Your task to perform on an android device: find photos in the google photos app Image 0: 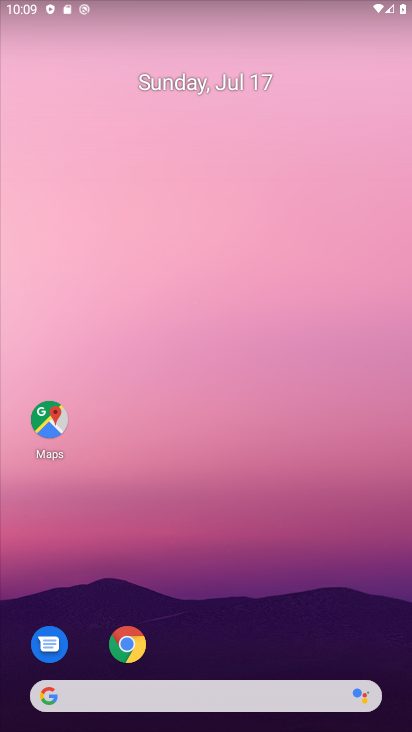
Step 0: drag from (271, 580) to (275, 54)
Your task to perform on an android device: find photos in the google photos app Image 1: 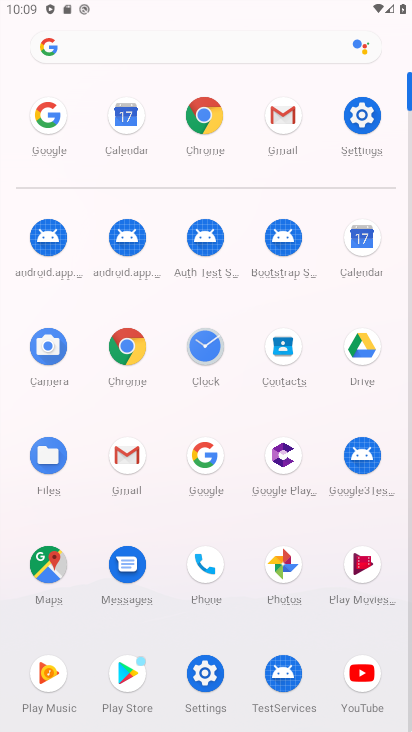
Step 1: click (286, 565)
Your task to perform on an android device: find photos in the google photos app Image 2: 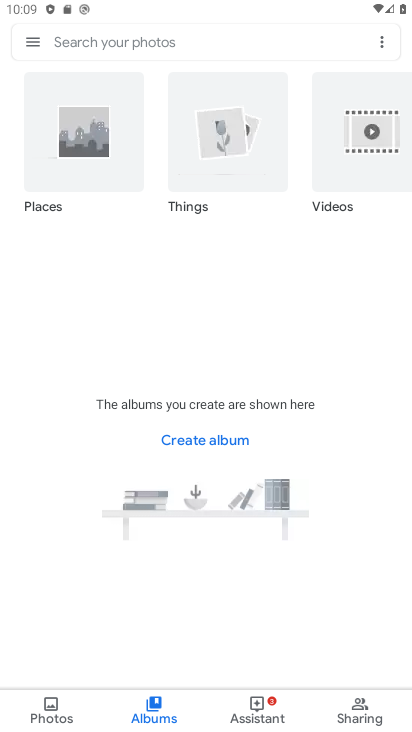
Step 2: click (49, 727)
Your task to perform on an android device: find photos in the google photos app Image 3: 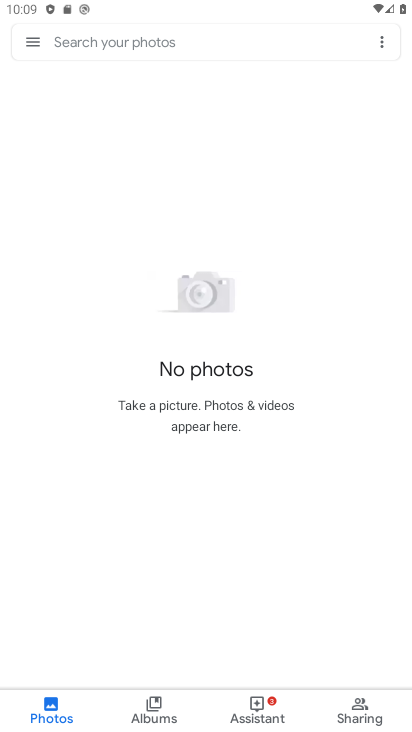
Step 3: task complete